Your task to perform on an android device: Open settings on Google Maps Image 0: 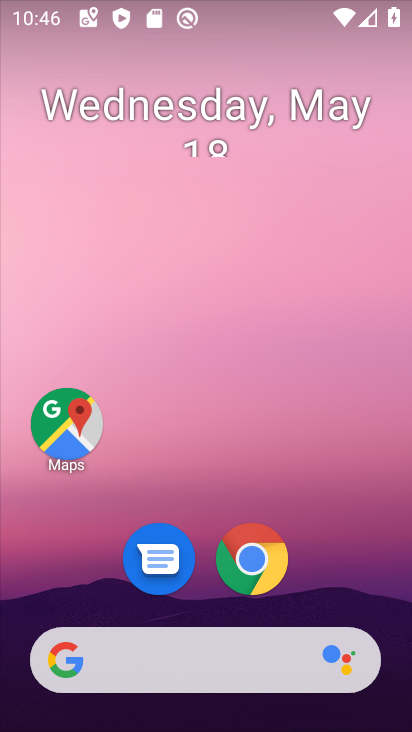
Step 0: click (43, 419)
Your task to perform on an android device: Open settings on Google Maps Image 1: 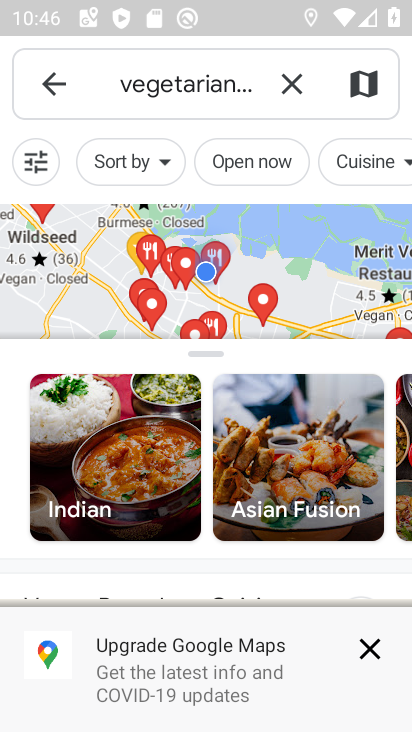
Step 1: task complete